Your task to perform on an android device: Go to ESPN.com Image 0: 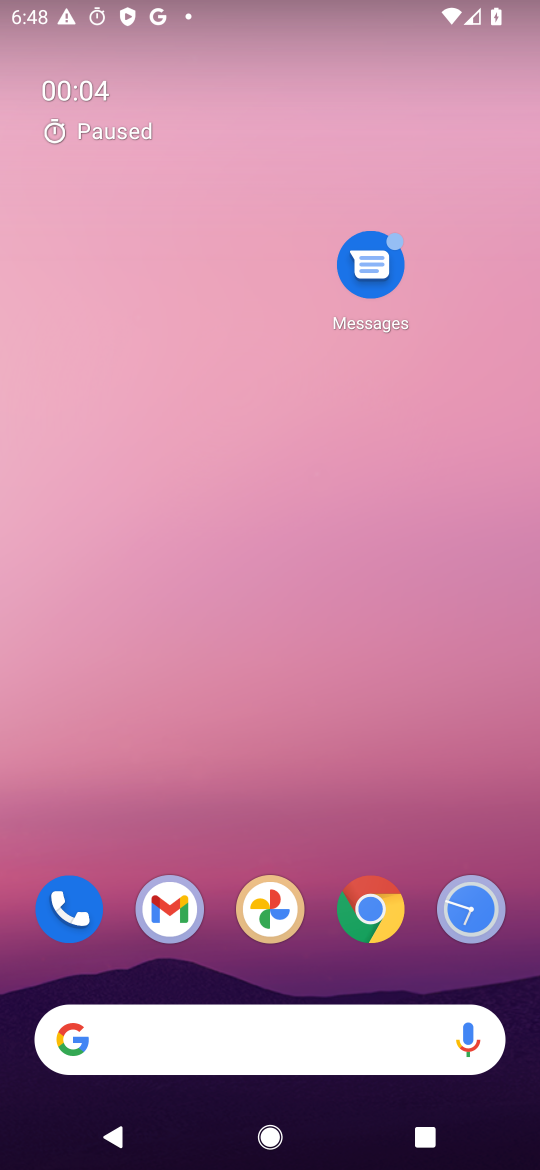
Step 0: press home button
Your task to perform on an android device: Go to ESPN.com Image 1: 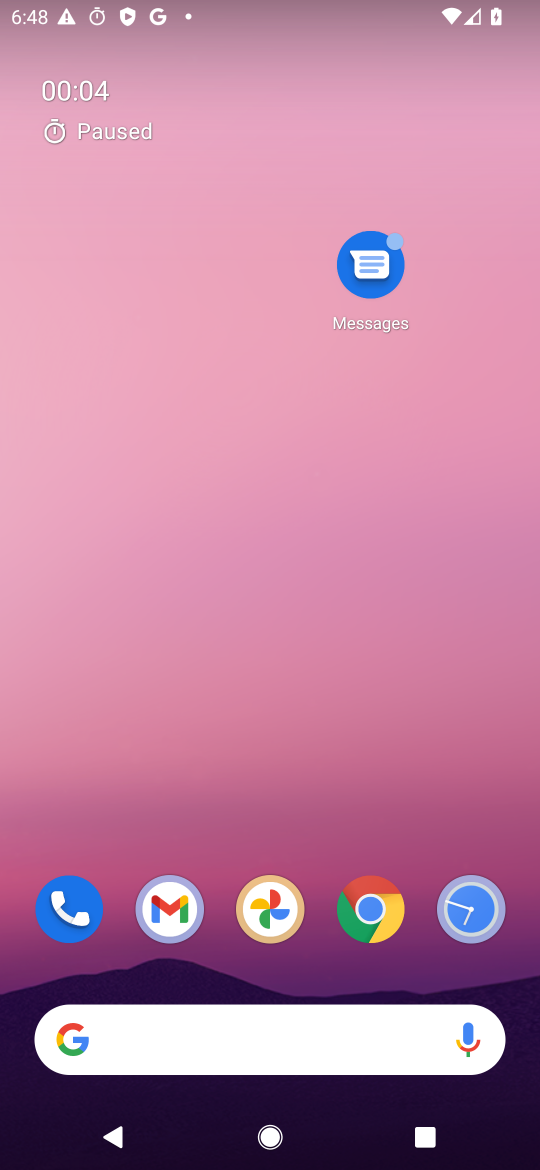
Step 1: drag from (279, 1043) to (467, 162)
Your task to perform on an android device: Go to ESPN.com Image 2: 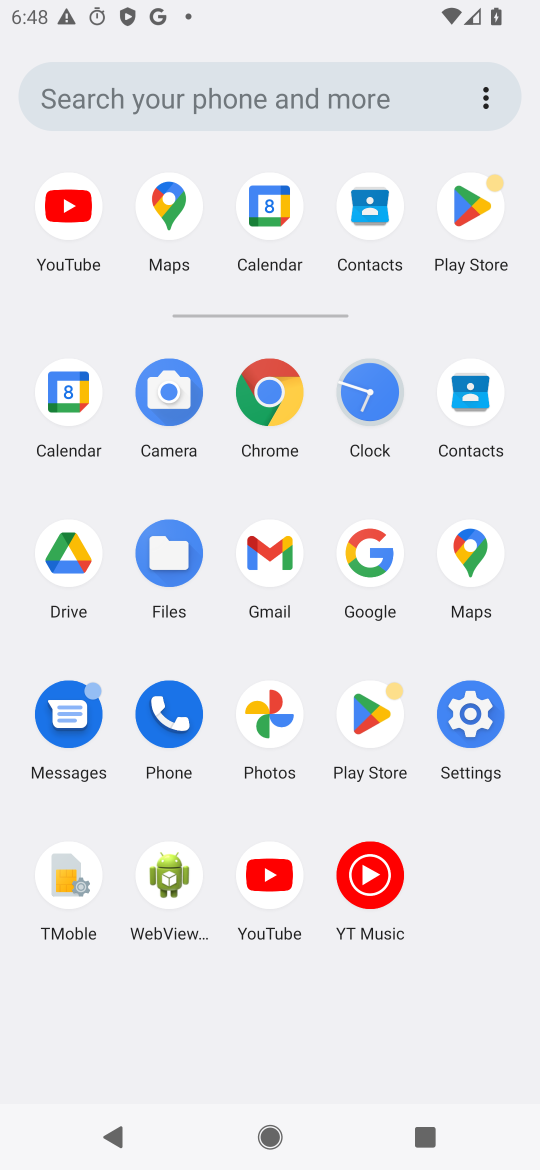
Step 2: click (263, 394)
Your task to perform on an android device: Go to ESPN.com Image 3: 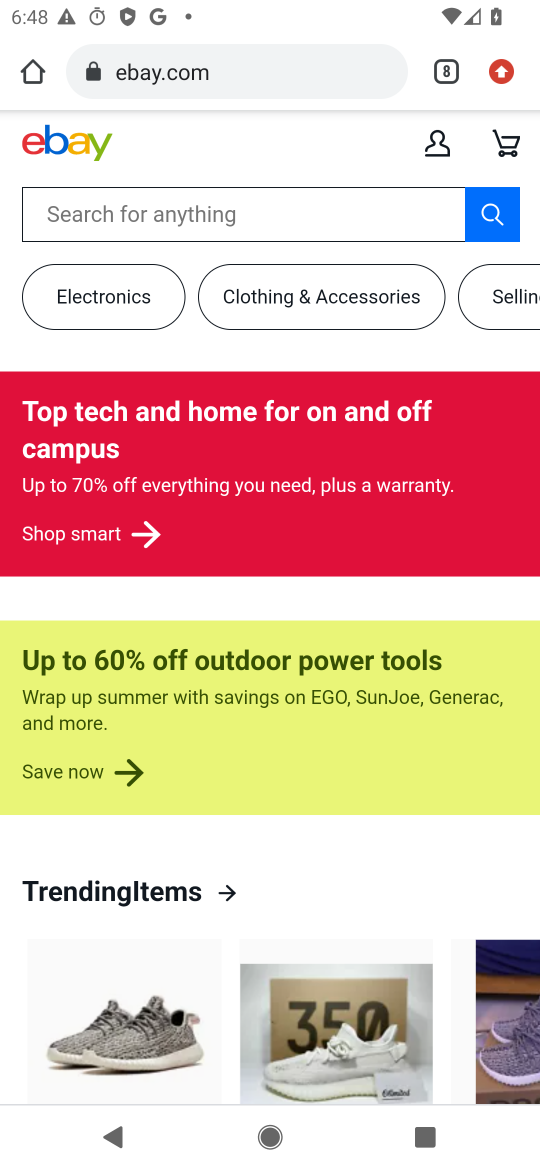
Step 3: drag from (501, 81) to (323, 228)
Your task to perform on an android device: Go to ESPN.com Image 4: 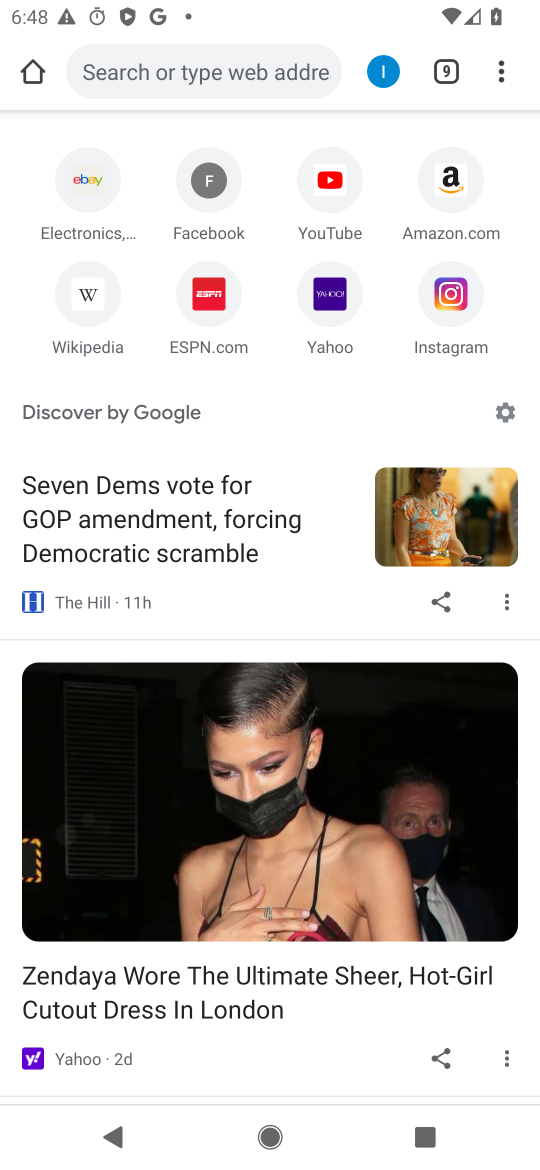
Step 4: click (210, 292)
Your task to perform on an android device: Go to ESPN.com Image 5: 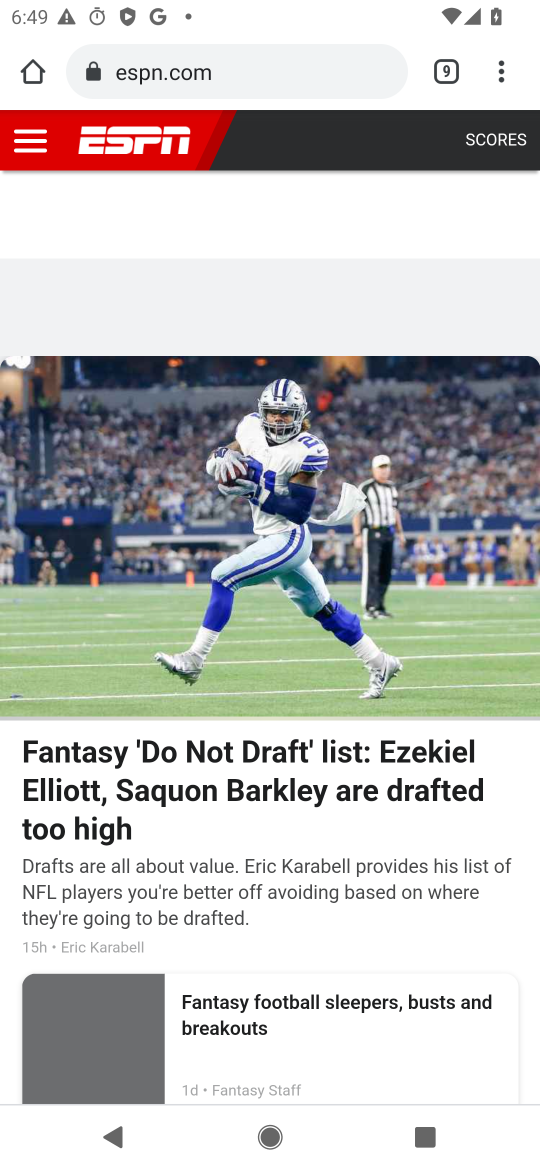
Step 5: task complete